Your task to perform on an android device: turn on the 12-hour format for clock Image 0: 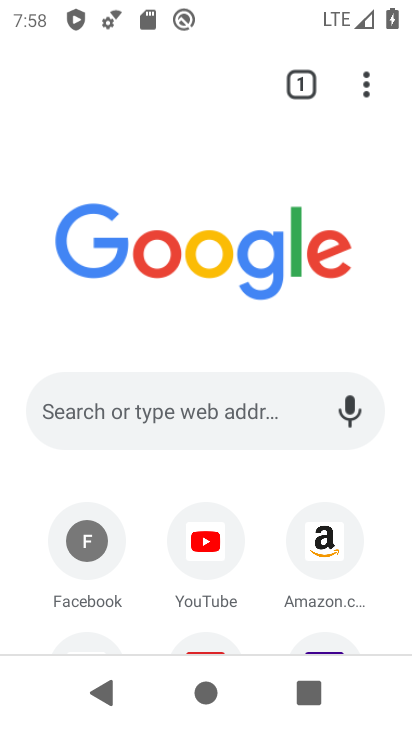
Step 0: press home button
Your task to perform on an android device: turn on the 12-hour format for clock Image 1: 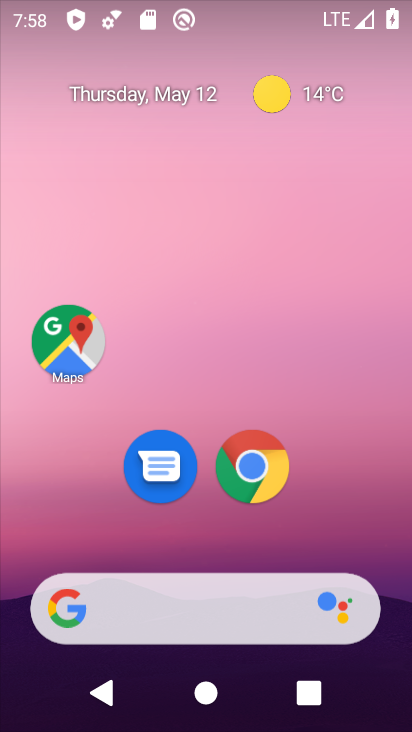
Step 1: drag from (197, 531) to (245, 24)
Your task to perform on an android device: turn on the 12-hour format for clock Image 2: 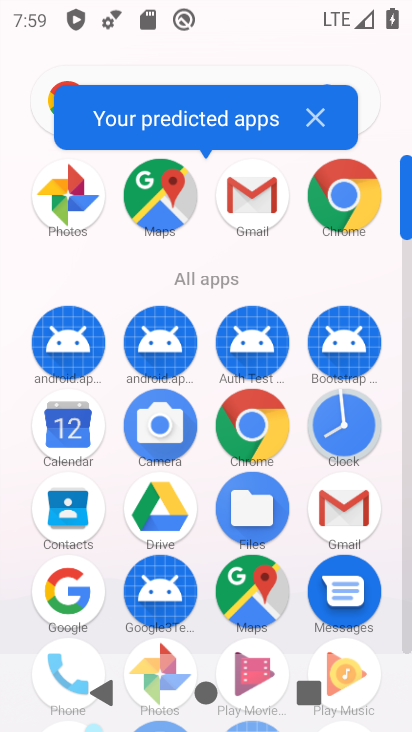
Step 2: click (338, 416)
Your task to perform on an android device: turn on the 12-hour format for clock Image 3: 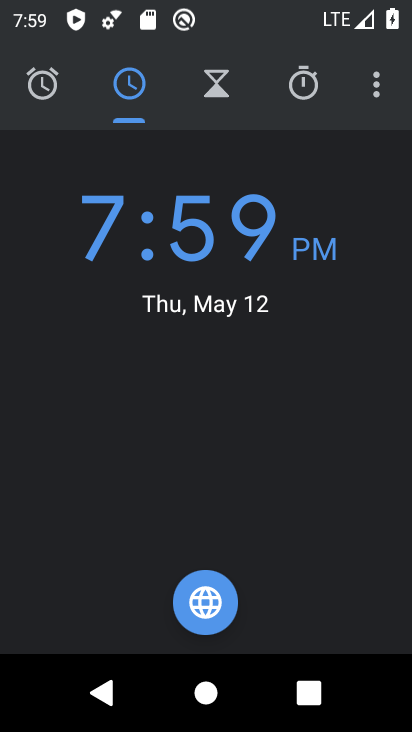
Step 3: click (372, 87)
Your task to perform on an android device: turn on the 12-hour format for clock Image 4: 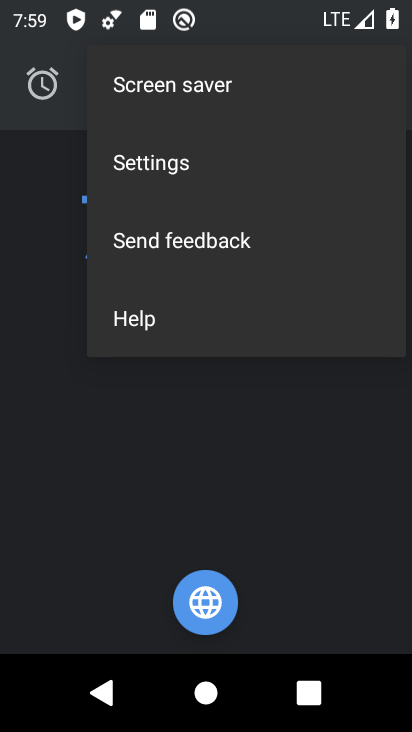
Step 4: click (198, 162)
Your task to perform on an android device: turn on the 12-hour format for clock Image 5: 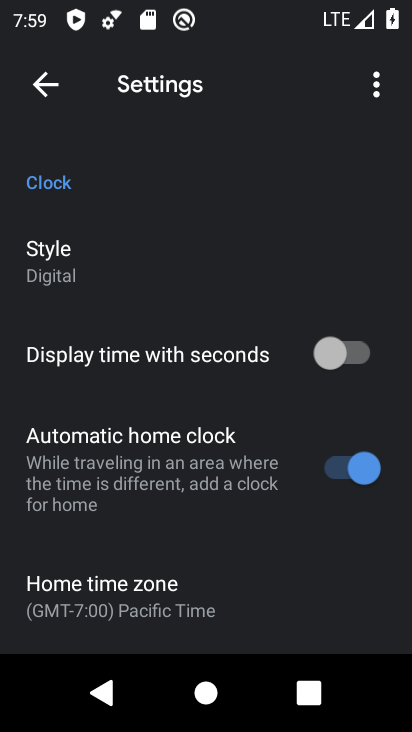
Step 5: drag from (232, 576) to (247, 147)
Your task to perform on an android device: turn on the 12-hour format for clock Image 6: 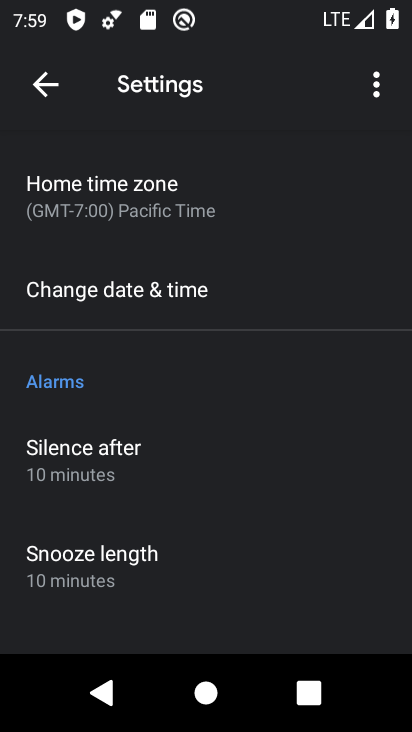
Step 6: click (180, 292)
Your task to perform on an android device: turn on the 12-hour format for clock Image 7: 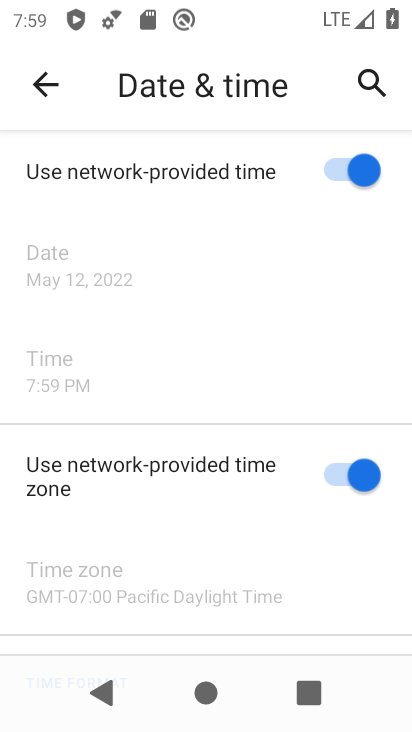
Step 7: task complete